Your task to perform on an android device: Show me the alarms in the clock app Image 0: 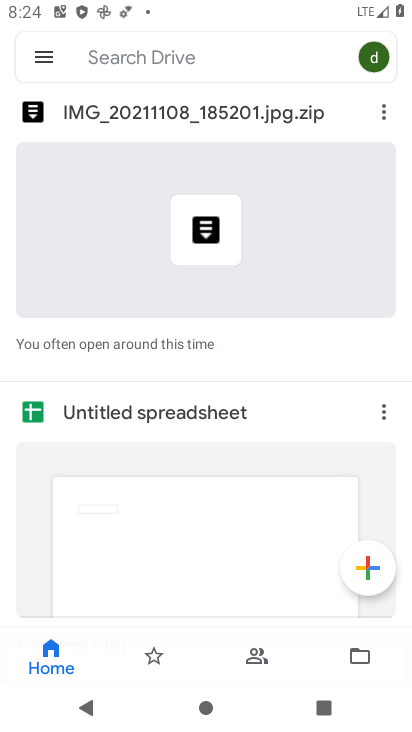
Step 0: press home button
Your task to perform on an android device: Show me the alarms in the clock app Image 1: 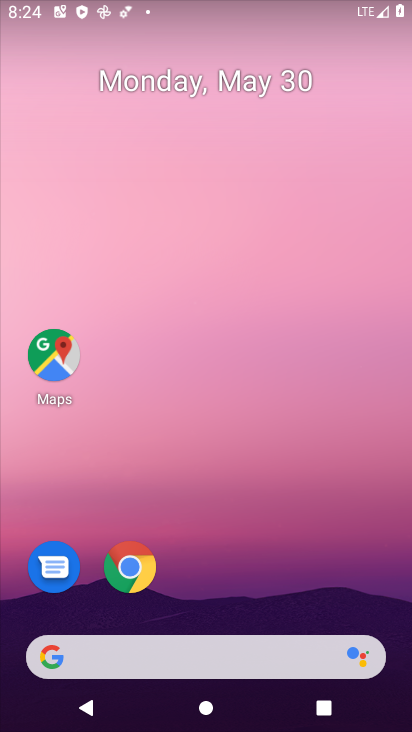
Step 1: drag from (238, 610) to (276, 6)
Your task to perform on an android device: Show me the alarms in the clock app Image 2: 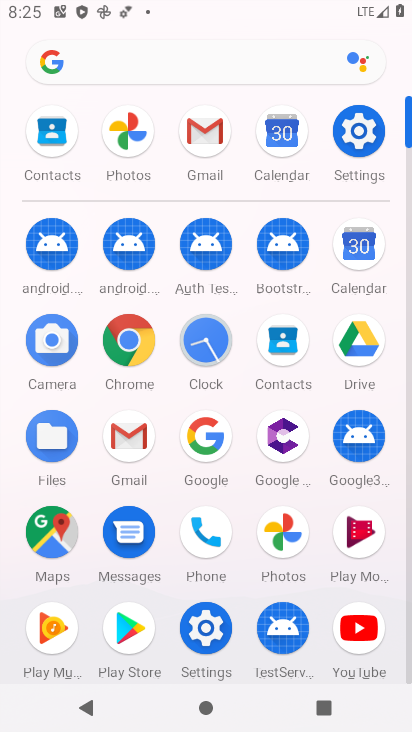
Step 2: click (347, 172)
Your task to perform on an android device: Show me the alarms in the clock app Image 3: 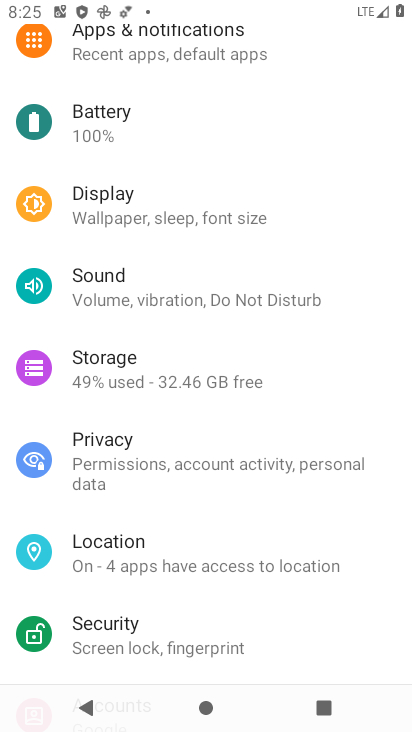
Step 3: press home button
Your task to perform on an android device: Show me the alarms in the clock app Image 4: 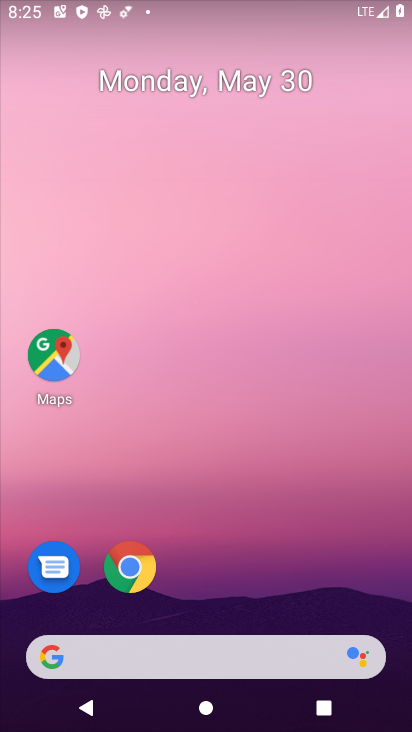
Step 4: drag from (248, 606) to (199, 25)
Your task to perform on an android device: Show me the alarms in the clock app Image 5: 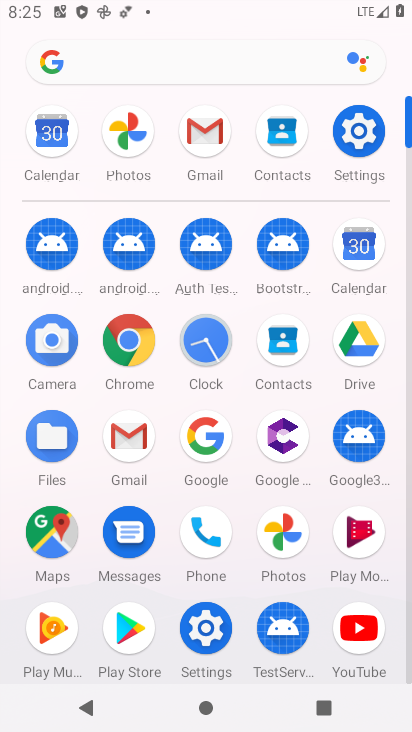
Step 5: click (192, 334)
Your task to perform on an android device: Show me the alarms in the clock app Image 6: 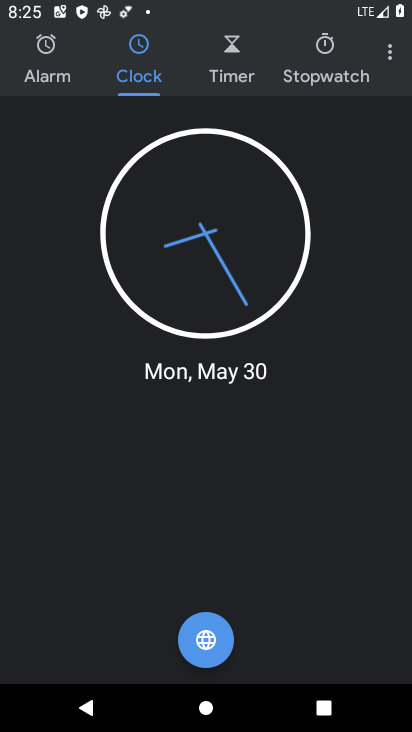
Step 6: click (70, 63)
Your task to perform on an android device: Show me the alarms in the clock app Image 7: 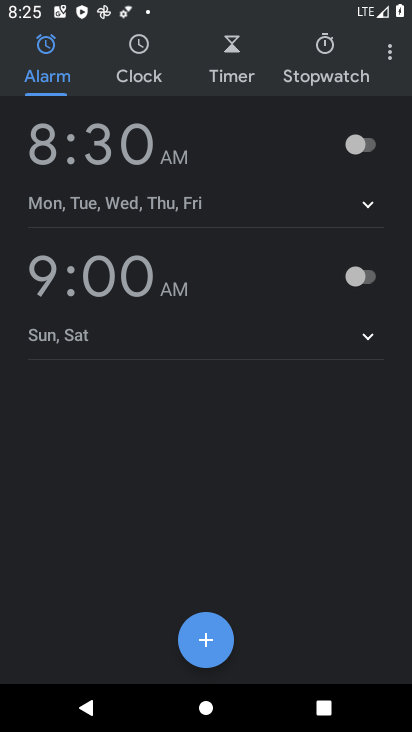
Step 7: task complete